Your task to perform on an android device: check battery use Image 0: 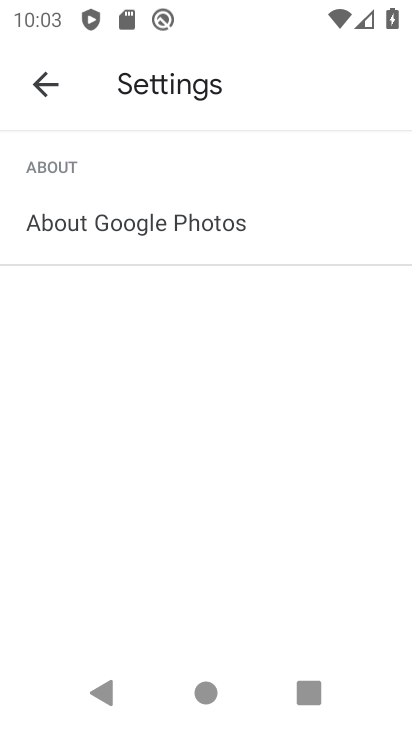
Step 0: press home button
Your task to perform on an android device: check battery use Image 1: 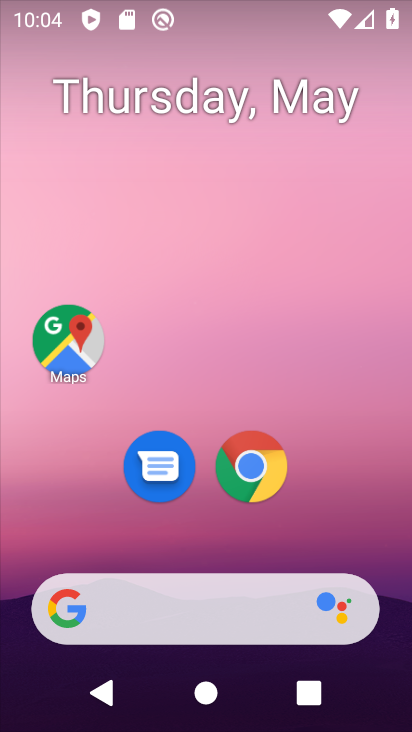
Step 1: drag from (368, 530) to (286, 110)
Your task to perform on an android device: check battery use Image 2: 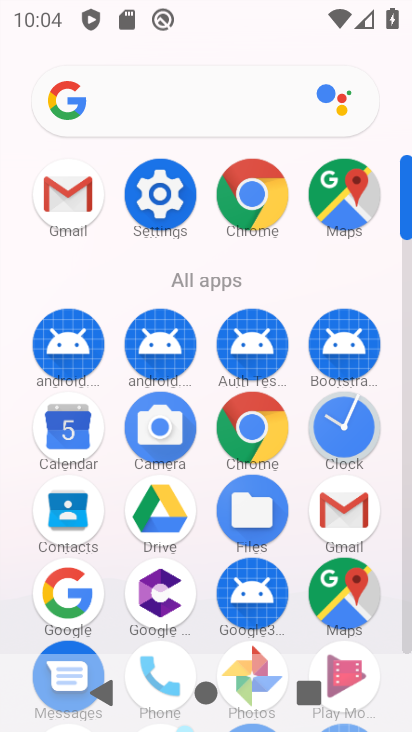
Step 2: click (163, 177)
Your task to perform on an android device: check battery use Image 3: 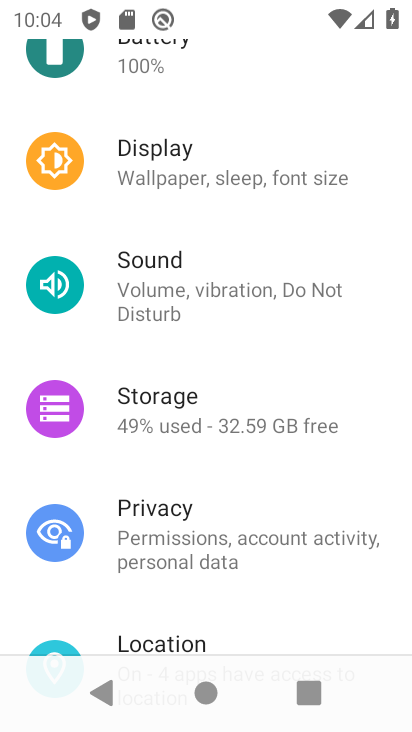
Step 3: click (156, 53)
Your task to perform on an android device: check battery use Image 4: 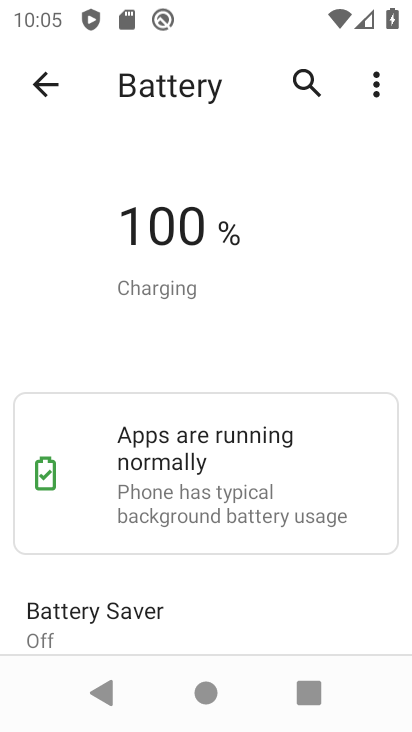
Step 4: click (382, 79)
Your task to perform on an android device: check battery use Image 5: 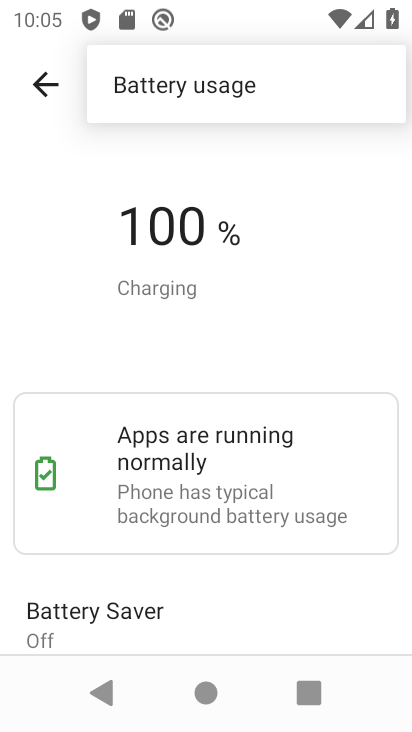
Step 5: click (293, 87)
Your task to perform on an android device: check battery use Image 6: 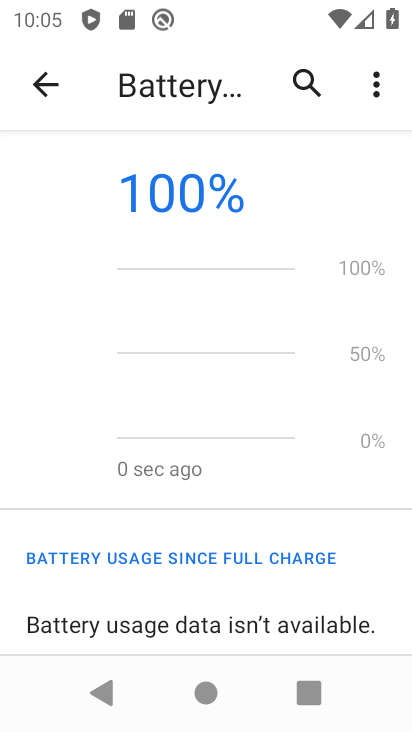
Step 6: task complete